Your task to perform on an android device: turn on showing notifications on the lock screen Image 0: 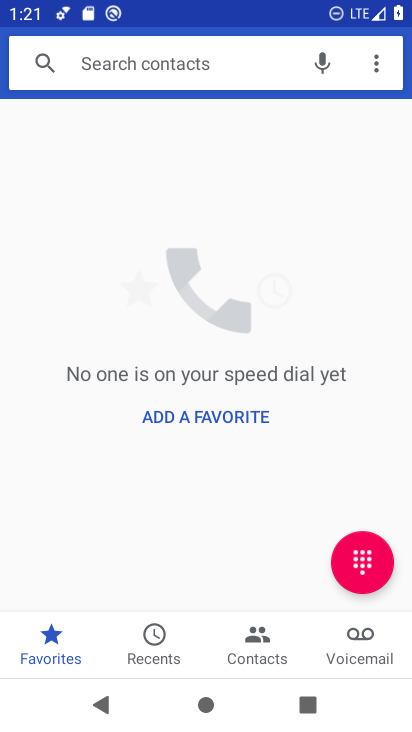
Step 0: press home button
Your task to perform on an android device: turn on showing notifications on the lock screen Image 1: 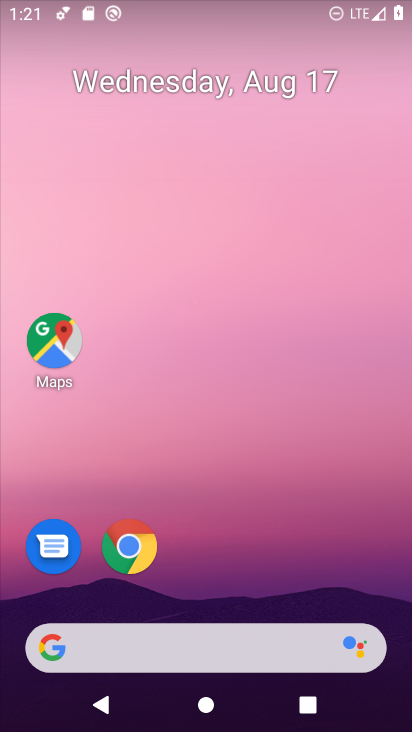
Step 1: drag from (235, 559) to (220, 61)
Your task to perform on an android device: turn on showing notifications on the lock screen Image 2: 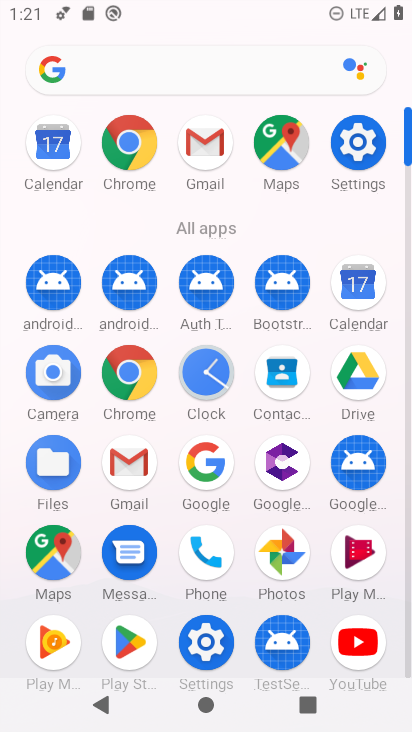
Step 2: click (353, 135)
Your task to perform on an android device: turn on showing notifications on the lock screen Image 3: 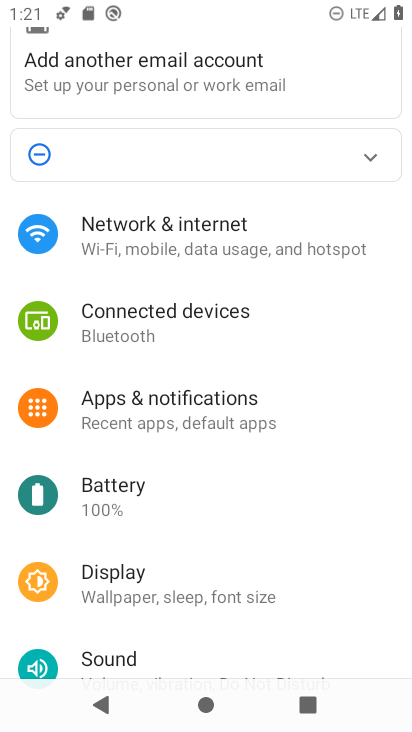
Step 3: click (170, 402)
Your task to perform on an android device: turn on showing notifications on the lock screen Image 4: 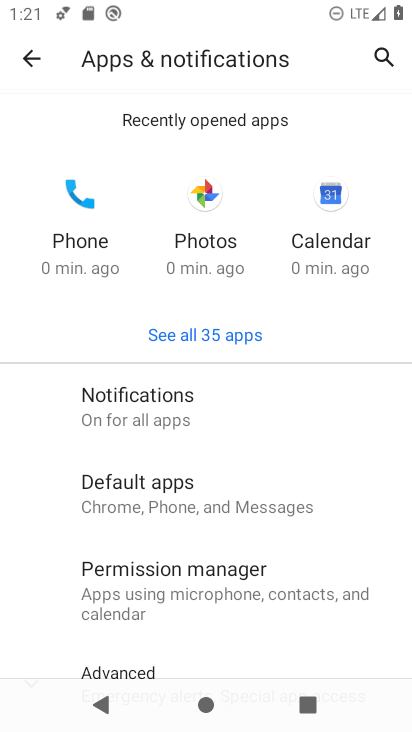
Step 4: drag from (242, 547) to (242, 310)
Your task to perform on an android device: turn on showing notifications on the lock screen Image 5: 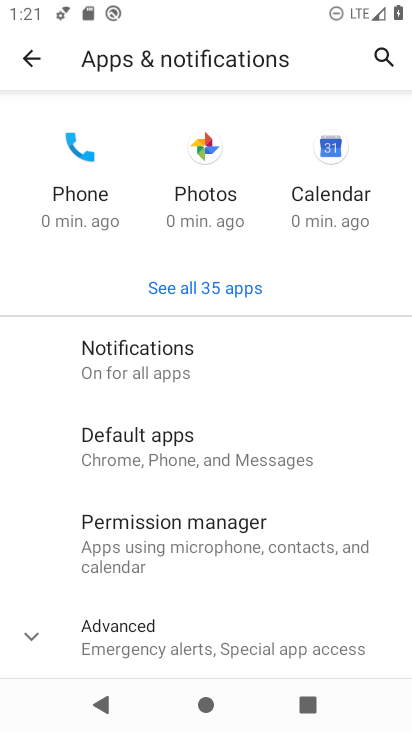
Step 5: drag from (241, 602) to (246, 439)
Your task to perform on an android device: turn on showing notifications on the lock screen Image 6: 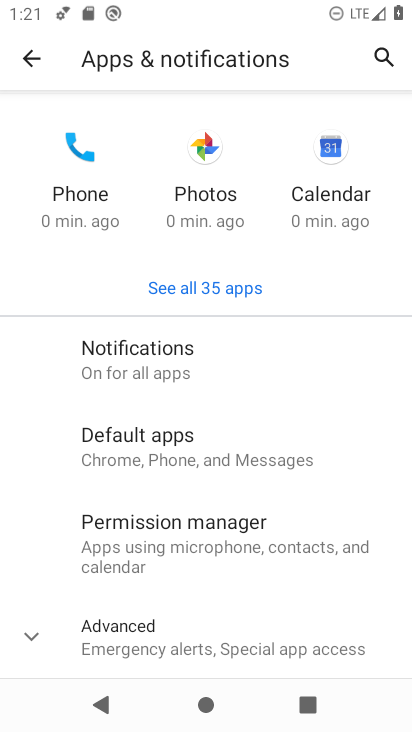
Step 6: click (134, 345)
Your task to perform on an android device: turn on showing notifications on the lock screen Image 7: 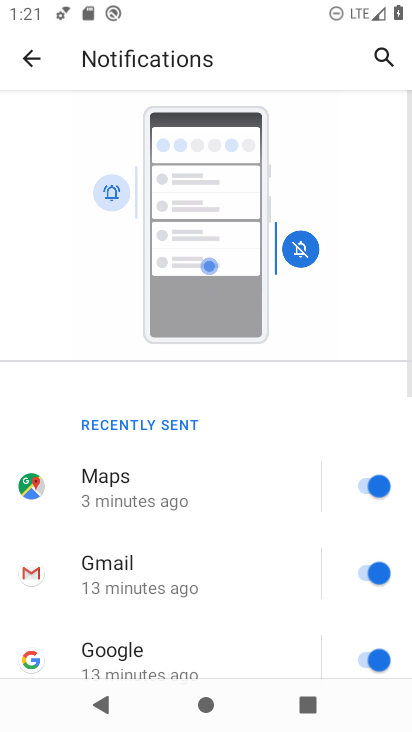
Step 7: drag from (263, 633) to (265, 332)
Your task to perform on an android device: turn on showing notifications on the lock screen Image 8: 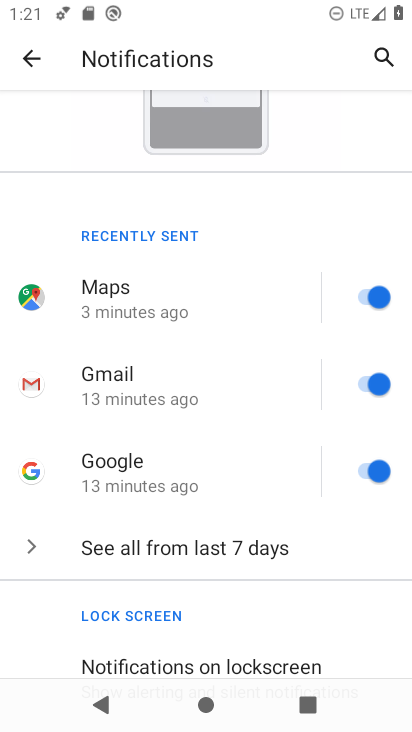
Step 8: drag from (250, 627) to (250, 382)
Your task to perform on an android device: turn on showing notifications on the lock screen Image 9: 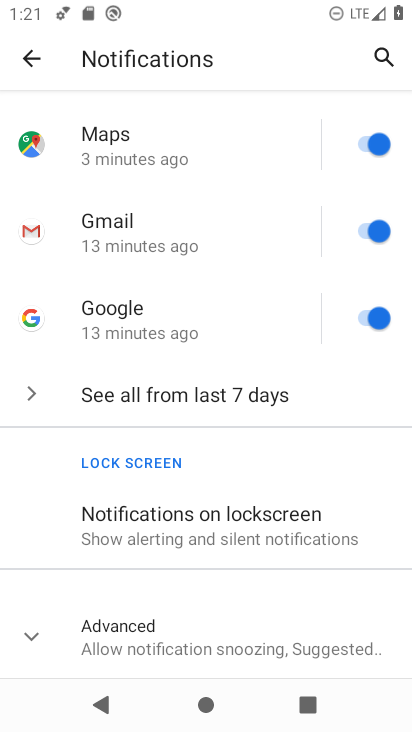
Step 9: click (205, 515)
Your task to perform on an android device: turn on showing notifications on the lock screen Image 10: 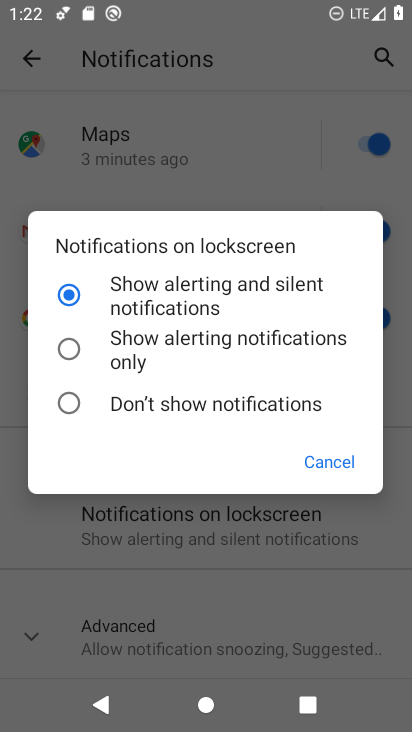
Step 10: task complete